Your task to perform on an android device: make emails show in primary in the gmail app Image 0: 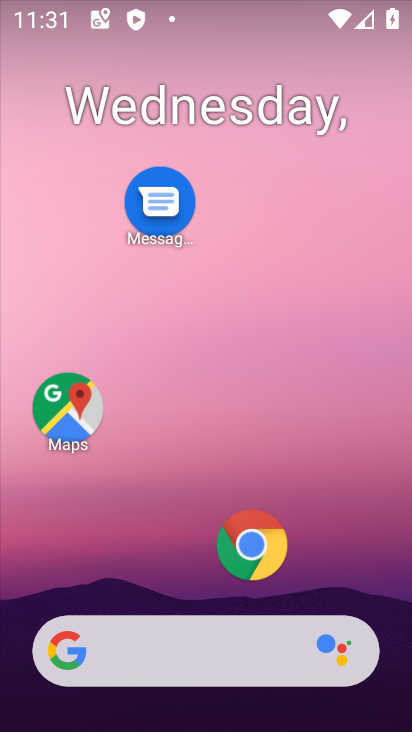
Step 0: drag from (168, 555) to (216, 228)
Your task to perform on an android device: make emails show in primary in the gmail app Image 1: 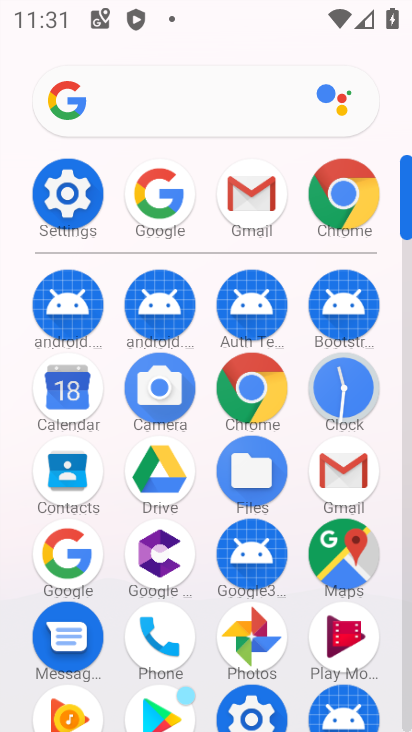
Step 1: click (274, 196)
Your task to perform on an android device: make emails show in primary in the gmail app Image 2: 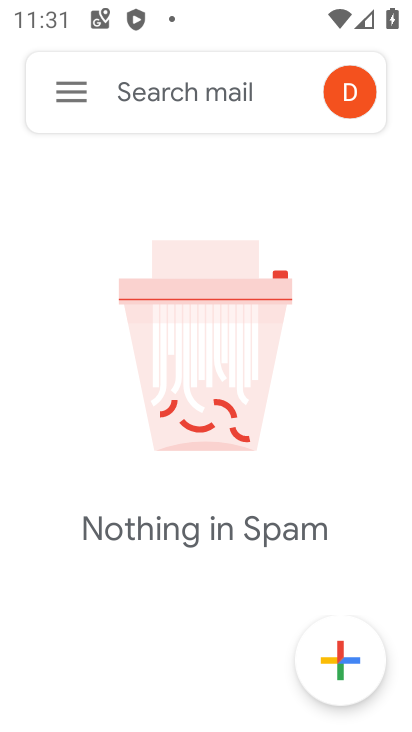
Step 2: click (63, 104)
Your task to perform on an android device: make emails show in primary in the gmail app Image 3: 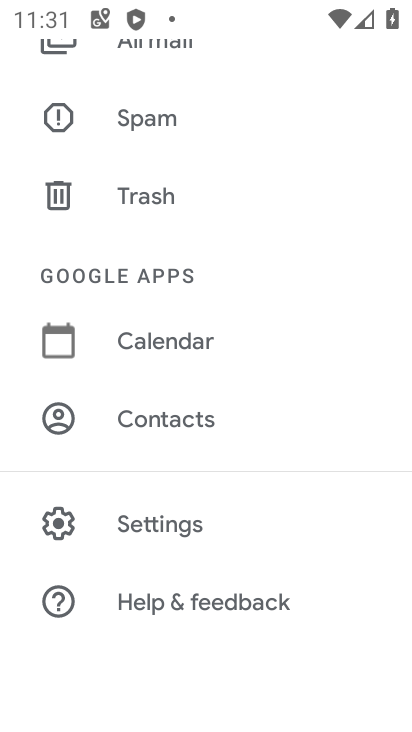
Step 3: drag from (166, 128) to (178, 231)
Your task to perform on an android device: make emails show in primary in the gmail app Image 4: 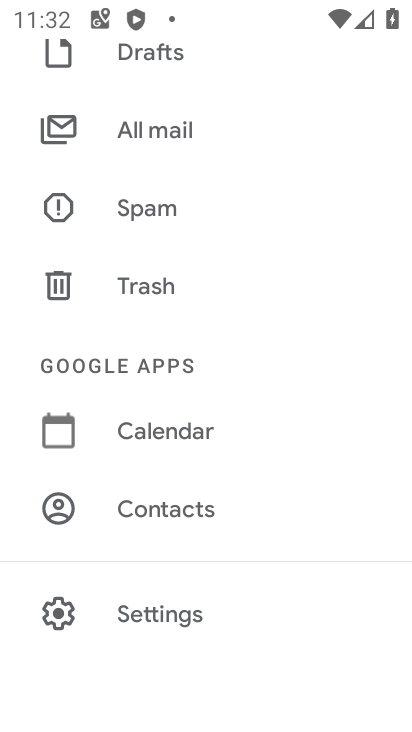
Step 4: click (154, 620)
Your task to perform on an android device: make emails show in primary in the gmail app Image 5: 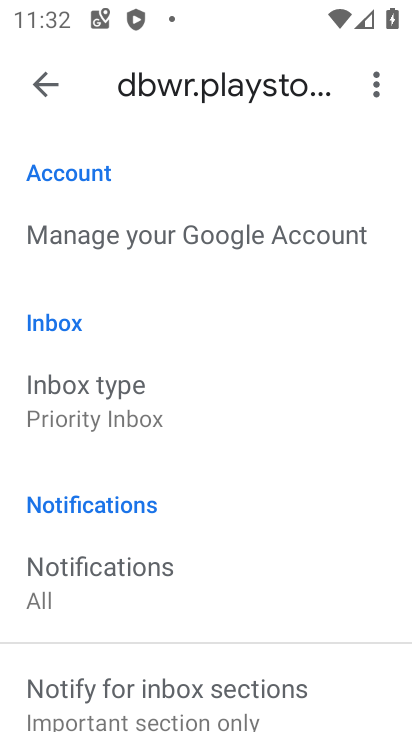
Step 5: click (197, 386)
Your task to perform on an android device: make emails show in primary in the gmail app Image 6: 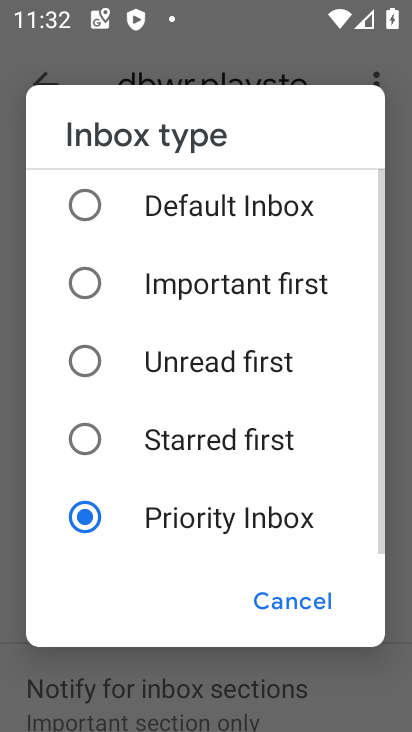
Step 6: click (176, 219)
Your task to perform on an android device: make emails show in primary in the gmail app Image 7: 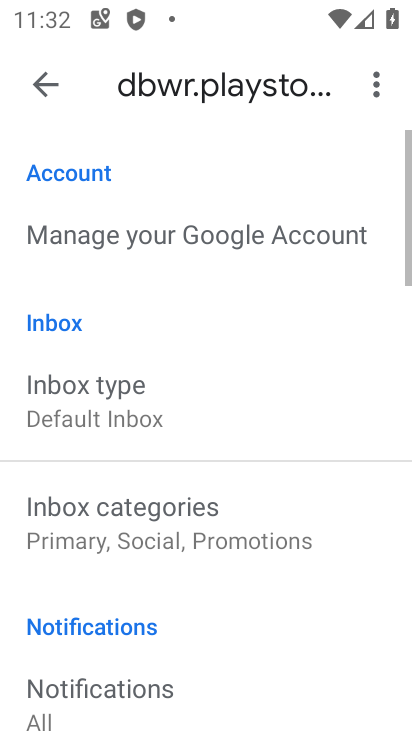
Step 7: click (128, 510)
Your task to perform on an android device: make emails show in primary in the gmail app Image 8: 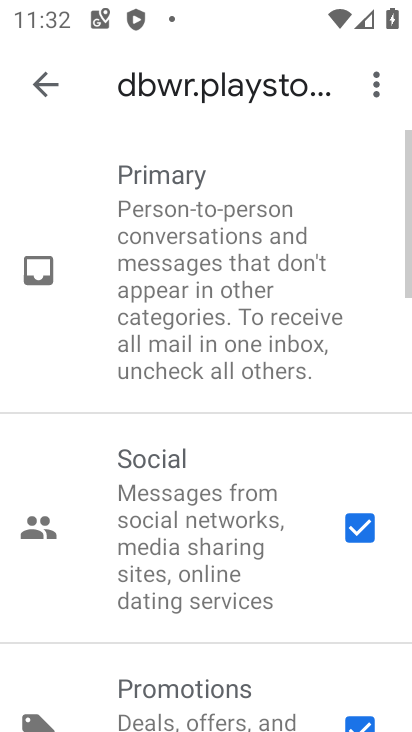
Step 8: click (318, 221)
Your task to perform on an android device: make emails show in primary in the gmail app Image 9: 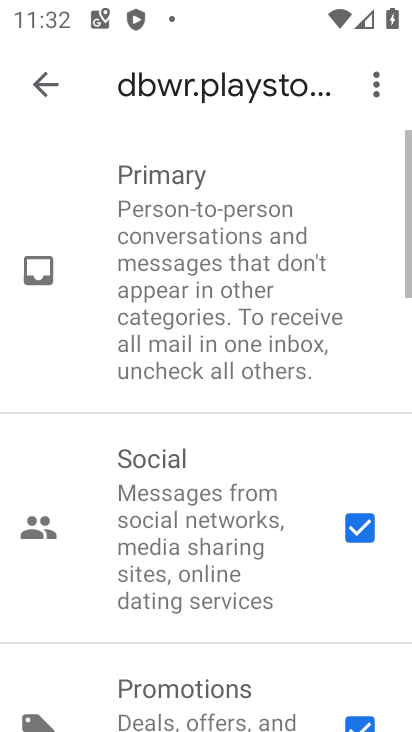
Step 9: task complete